Your task to perform on an android device: Go to Google maps Image 0: 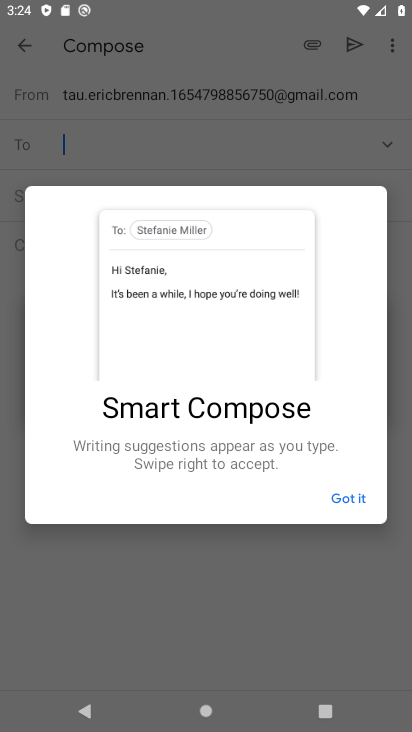
Step 0: press home button
Your task to perform on an android device: Go to Google maps Image 1: 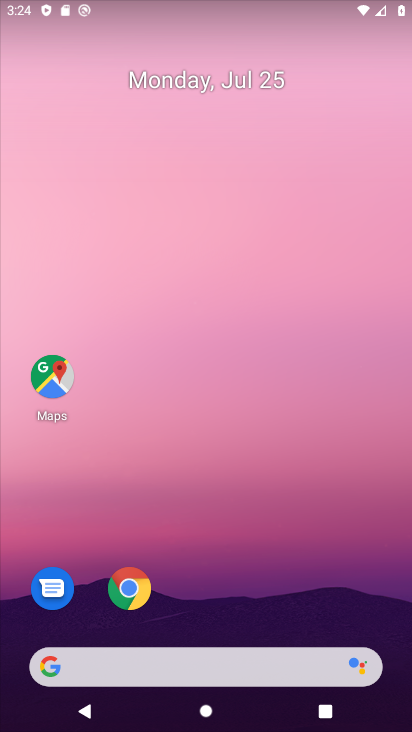
Step 1: drag from (310, 285) to (408, 353)
Your task to perform on an android device: Go to Google maps Image 2: 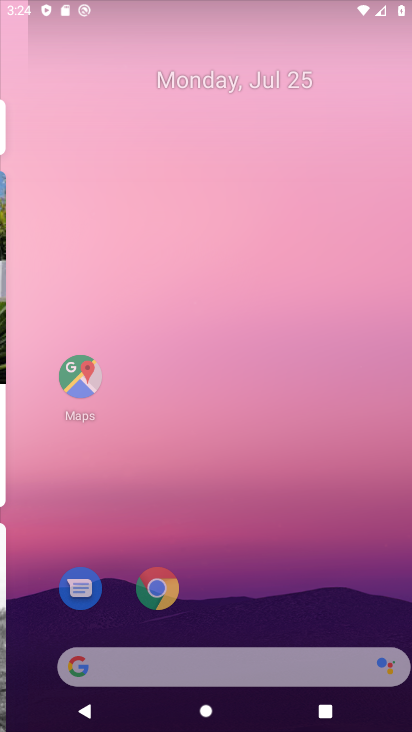
Step 2: click (268, 448)
Your task to perform on an android device: Go to Google maps Image 3: 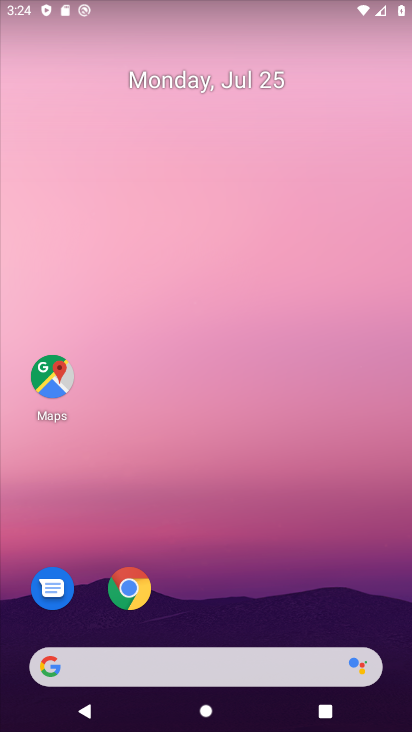
Step 3: drag from (229, 726) to (211, 116)
Your task to perform on an android device: Go to Google maps Image 4: 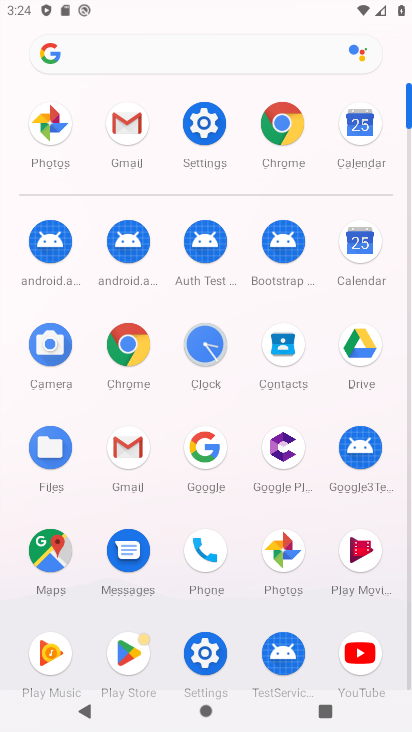
Step 4: click (56, 543)
Your task to perform on an android device: Go to Google maps Image 5: 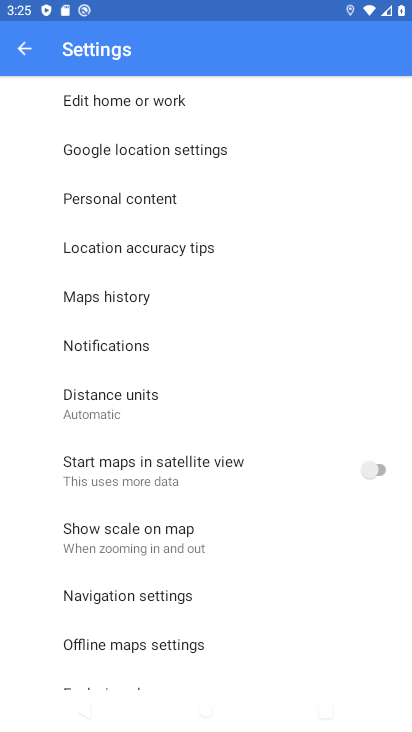
Step 5: click (27, 47)
Your task to perform on an android device: Go to Google maps Image 6: 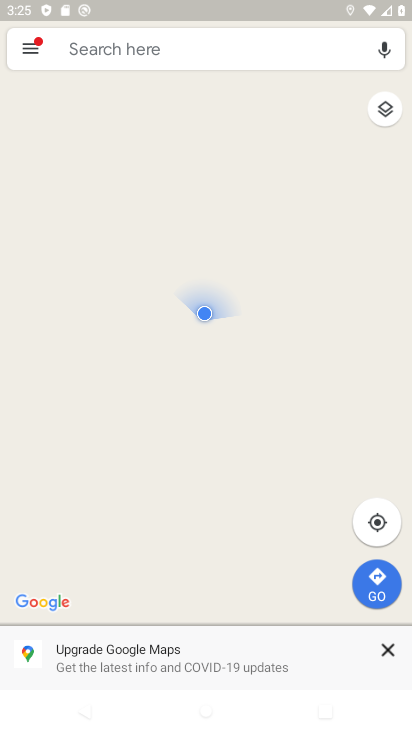
Step 6: task complete